Your task to perform on an android device: set the stopwatch Image 0: 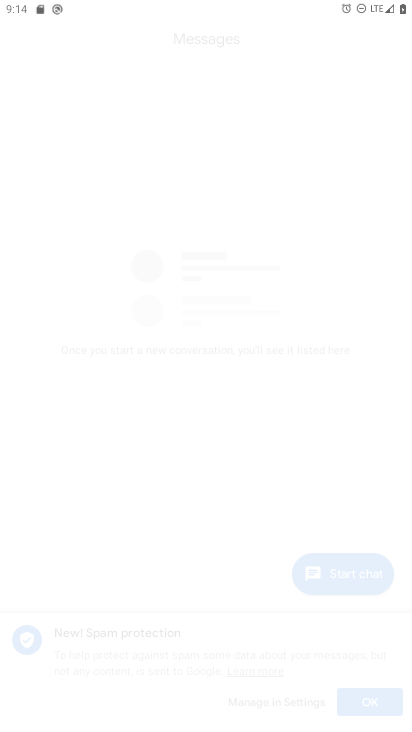
Step 0: drag from (260, 710) to (179, 106)
Your task to perform on an android device: set the stopwatch Image 1: 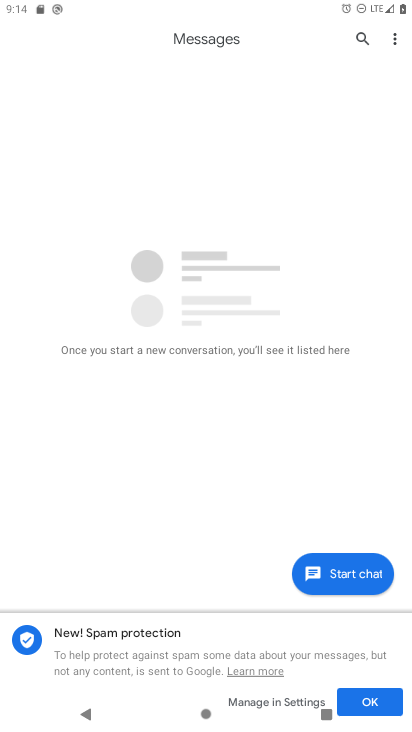
Step 1: press home button
Your task to perform on an android device: set the stopwatch Image 2: 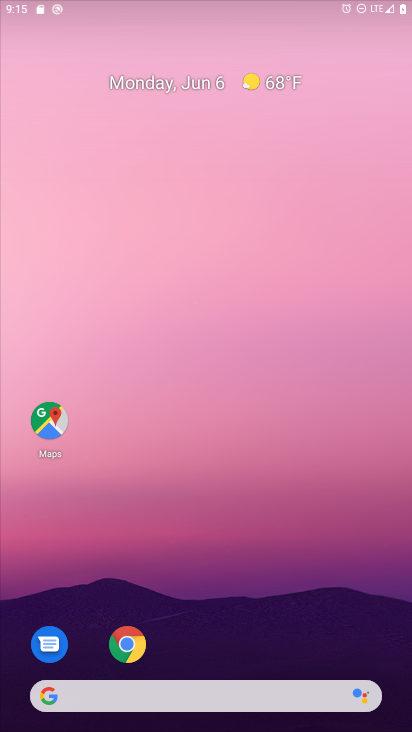
Step 2: drag from (204, 717) to (156, 182)
Your task to perform on an android device: set the stopwatch Image 3: 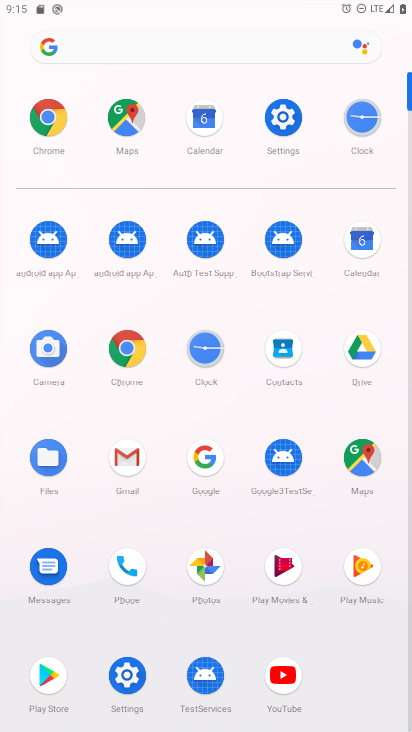
Step 3: click (345, 148)
Your task to perform on an android device: set the stopwatch Image 4: 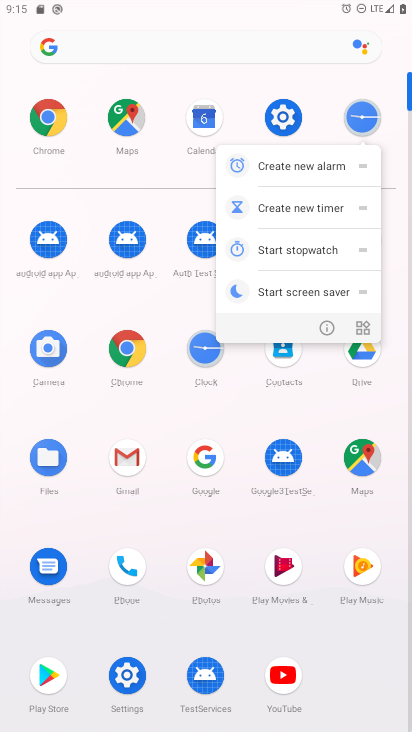
Step 4: click (365, 128)
Your task to perform on an android device: set the stopwatch Image 5: 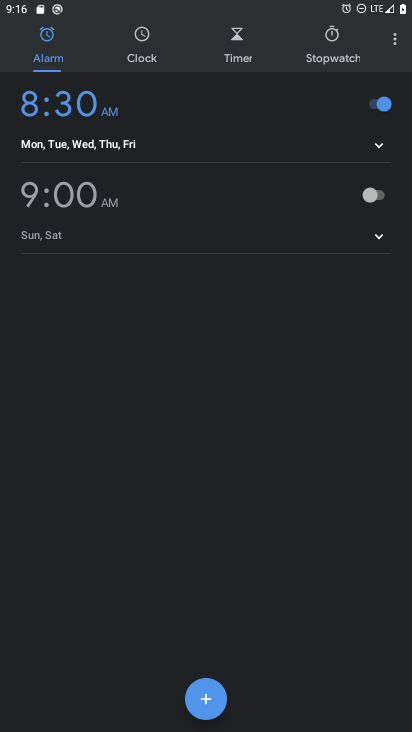
Step 5: click (342, 47)
Your task to perform on an android device: set the stopwatch Image 6: 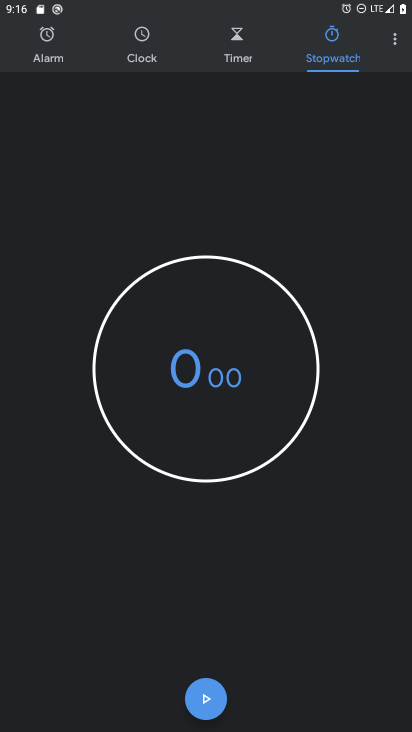
Step 6: task complete